Your task to perform on an android device: Go to Google maps Image 0: 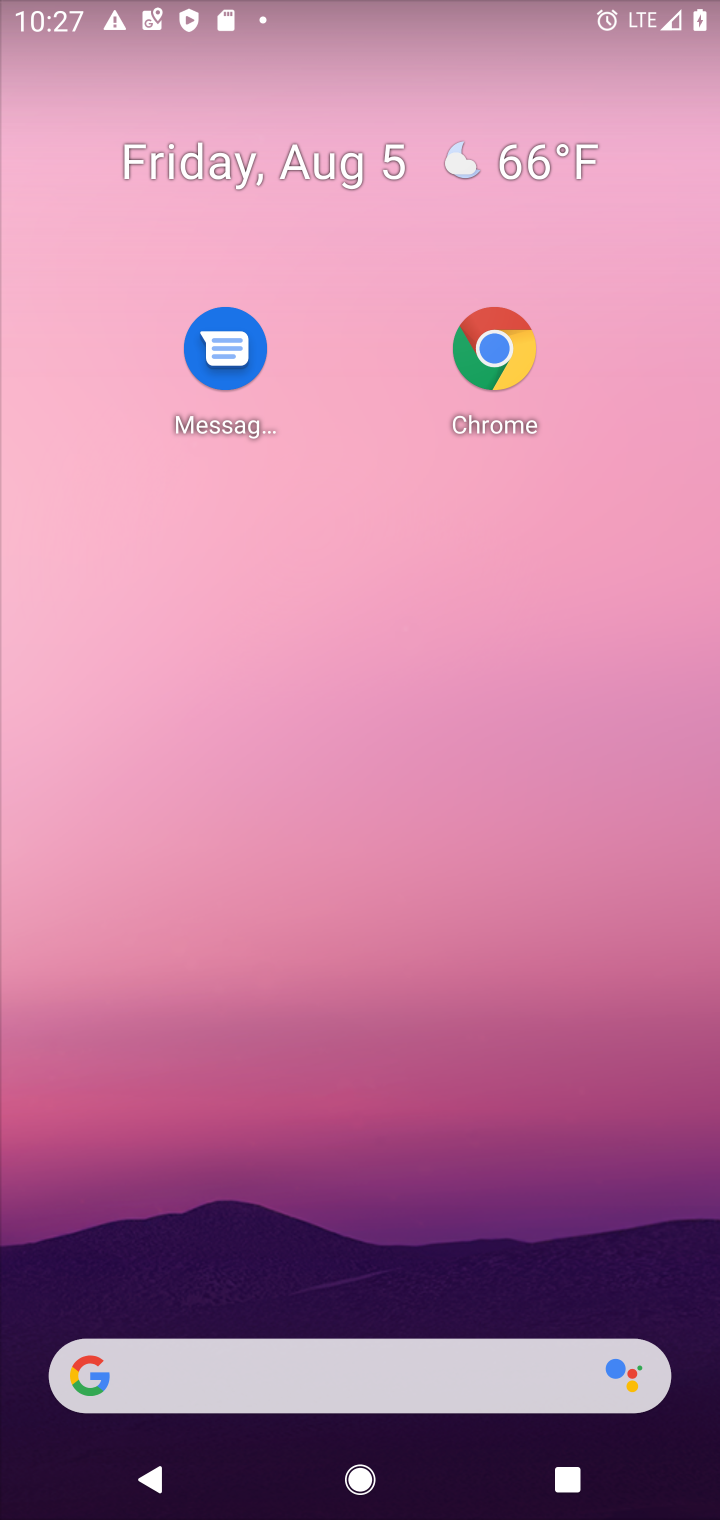
Step 0: press home button
Your task to perform on an android device: Go to Google maps Image 1: 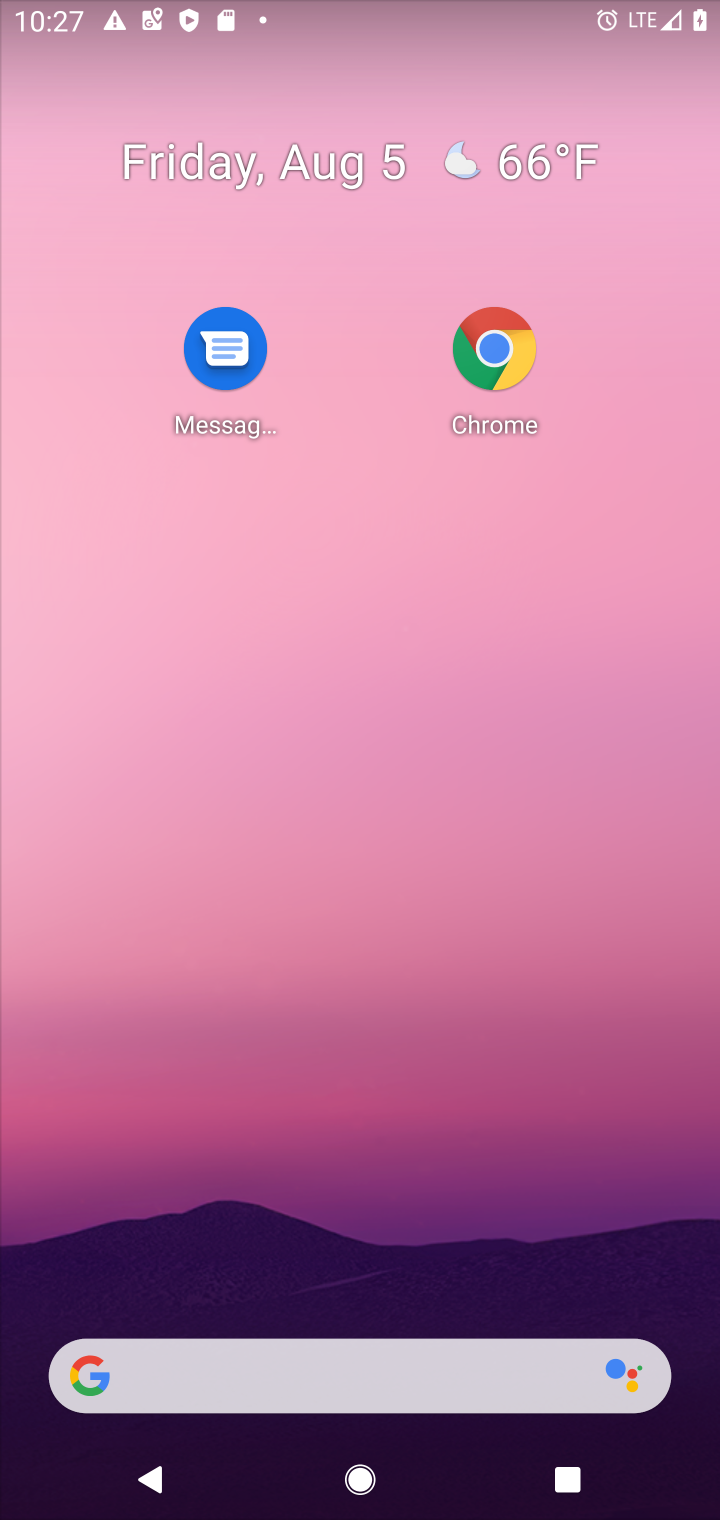
Step 1: drag from (486, 1433) to (206, 401)
Your task to perform on an android device: Go to Google maps Image 2: 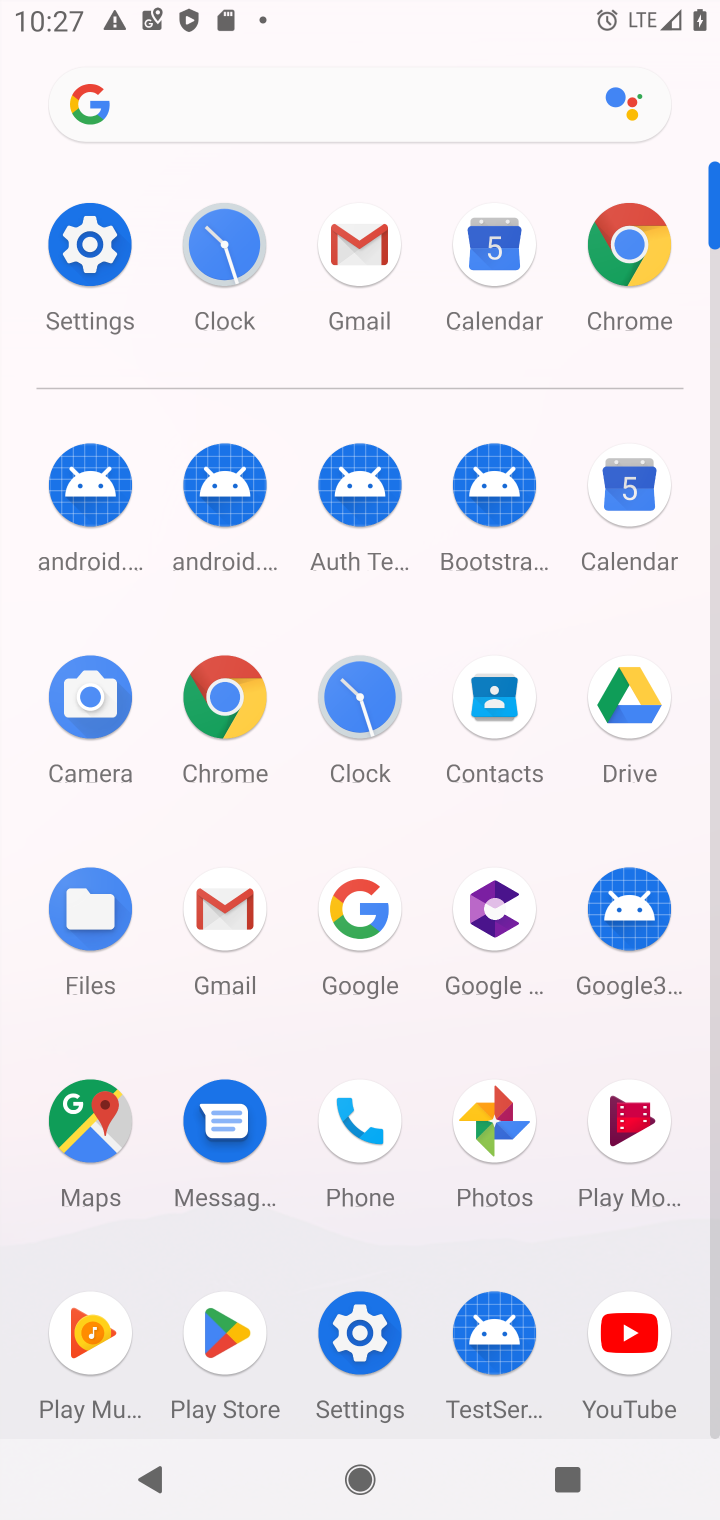
Step 2: click (107, 1130)
Your task to perform on an android device: Go to Google maps Image 3: 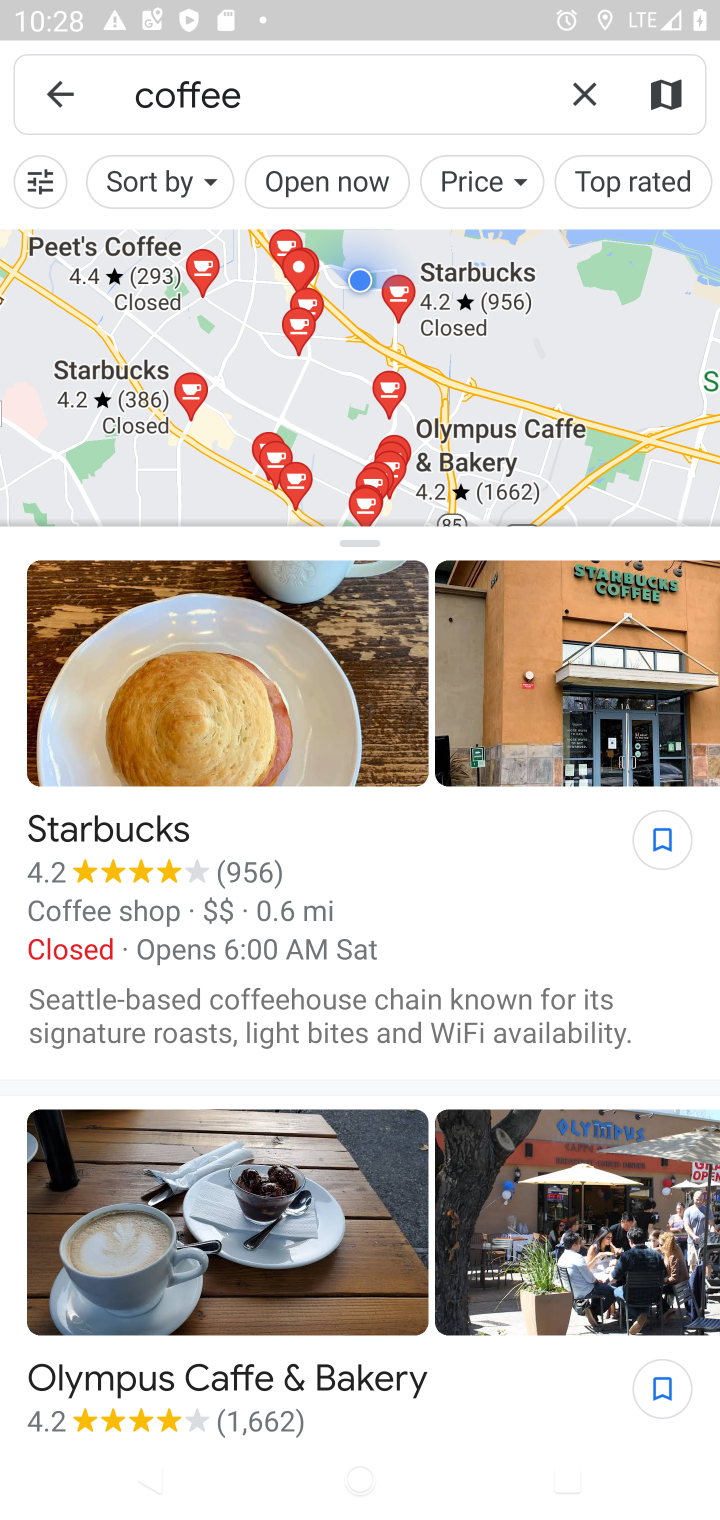
Step 3: click (59, 96)
Your task to perform on an android device: Go to Google maps Image 4: 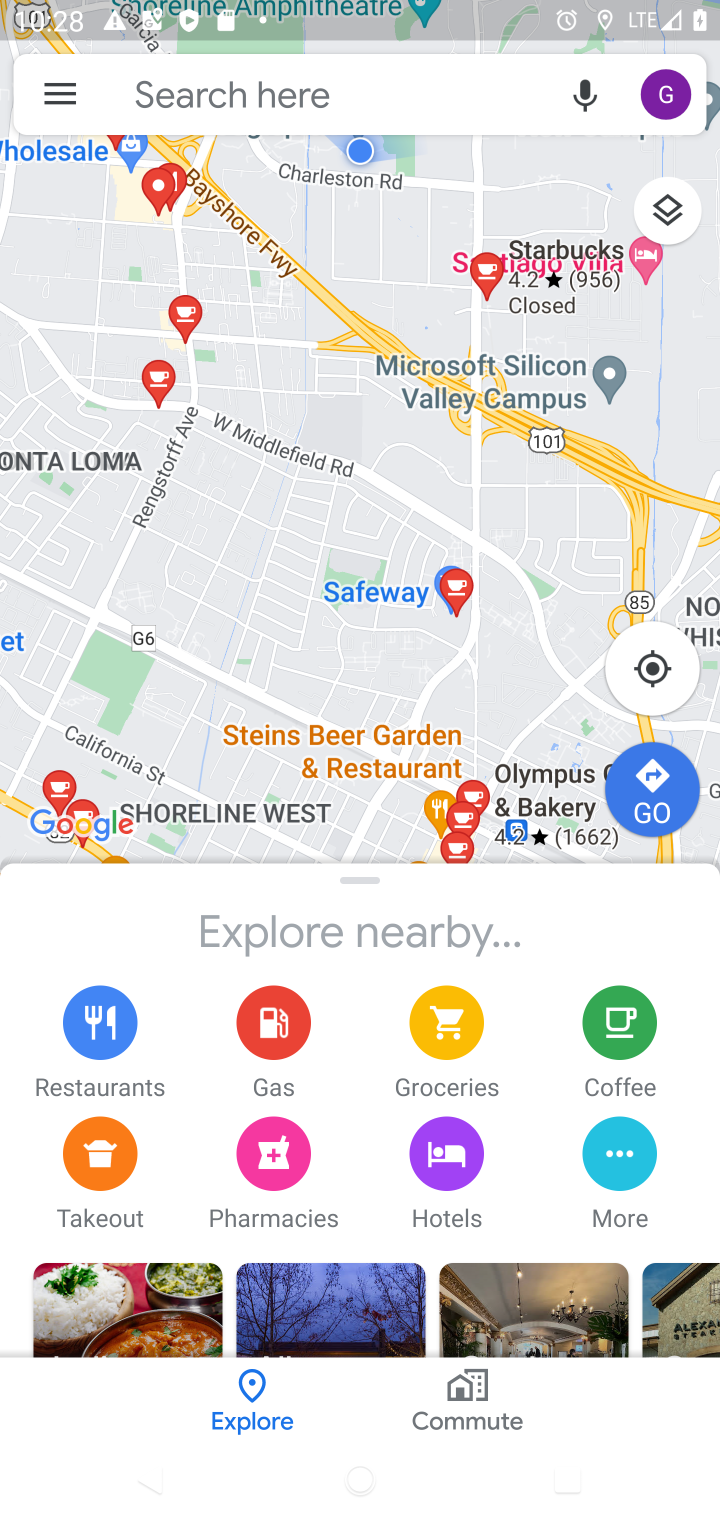
Step 4: click (647, 683)
Your task to perform on an android device: Go to Google maps Image 5: 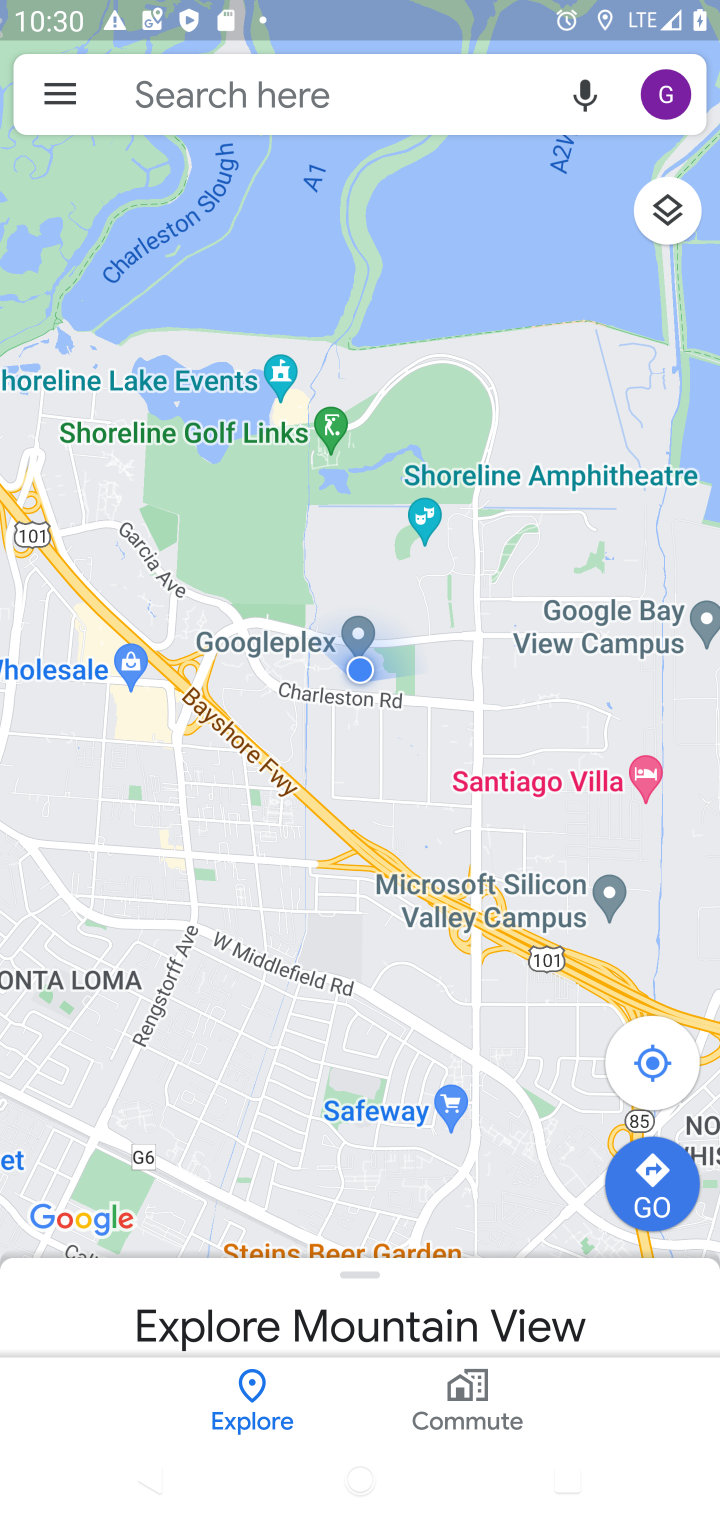
Step 5: task complete